Your task to perform on an android device: turn notification dots on Image 0: 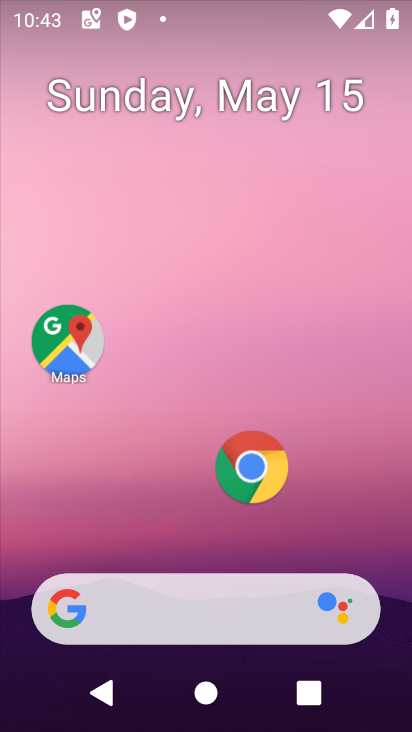
Step 0: drag from (231, 470) to (261, 19)
Your task to perform on an android device: turn notification dots on Image 1: 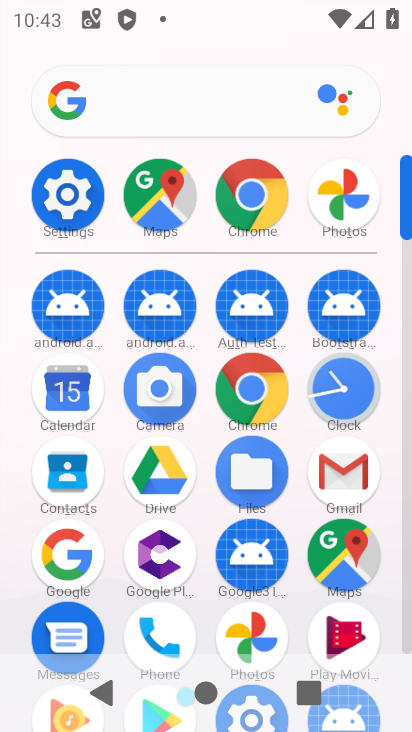
Step 1: click (53, 196)
Your task to perform on an android device: turn notification dots on Image 2: 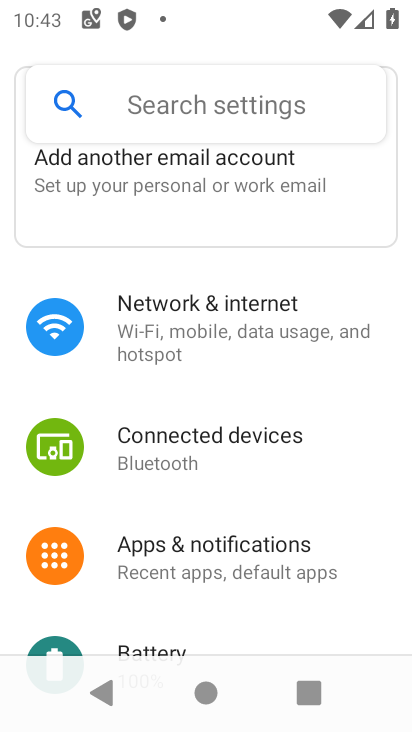
Step 2: drag from (228, 587) to (276, 77)
Your task to perform on an android device: turn notification dots on Image 3: 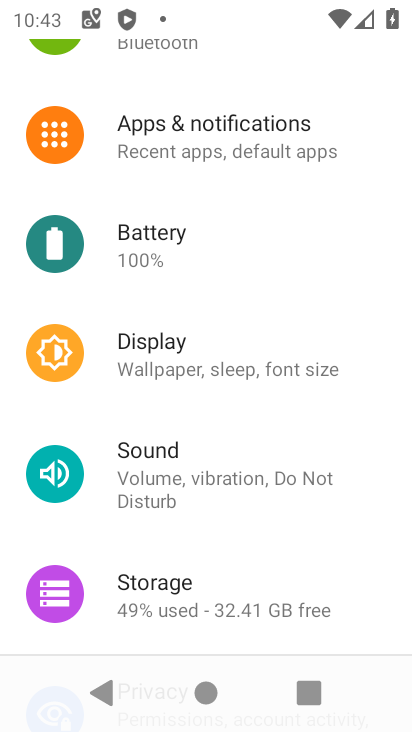
Step 3: click (207, 136)
Your task to perform on an android device: turn notification dots on Image 4: 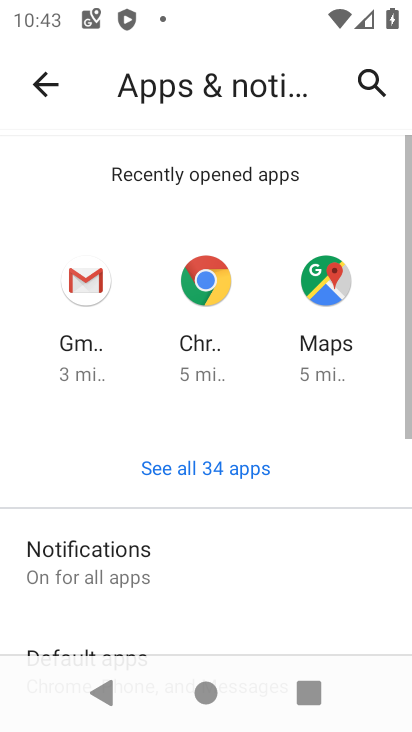
Step 4: drag from (301, 571) to (274, 81)
Your task to perform on an android device: turn notification dots on Image 5: 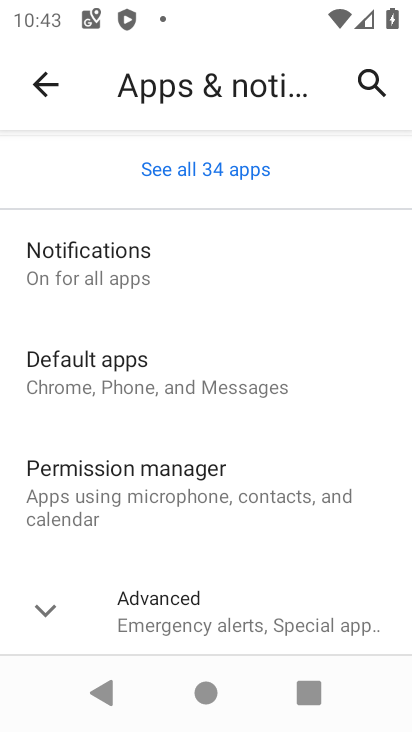
Step 5: click (222, 599)
Your task to perform on an android device: turn notification dots on Image 6: 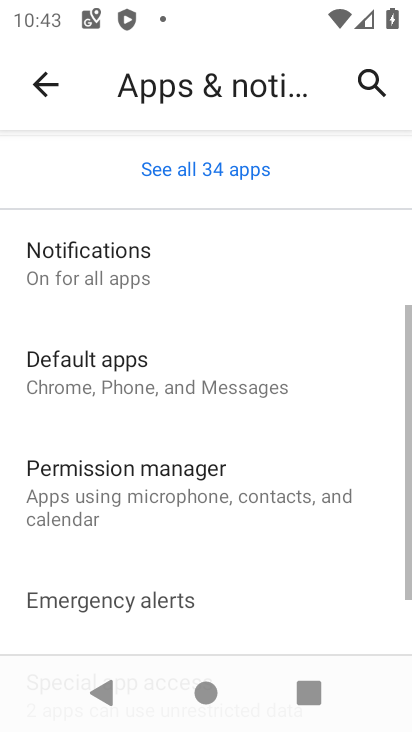
Step 6: drag from (222, 599) to (240, 193)
Your task to perform on an android device: turn notification dots on Image 7: 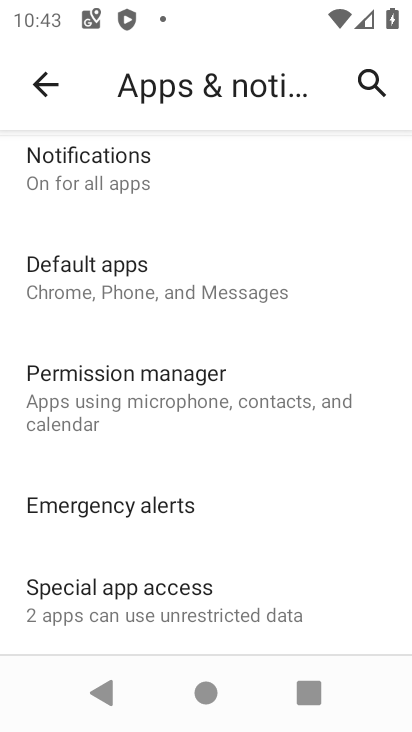
Step 7: click (212, 612)
Your task to perform on an android device: turn notification dots on Image 8: 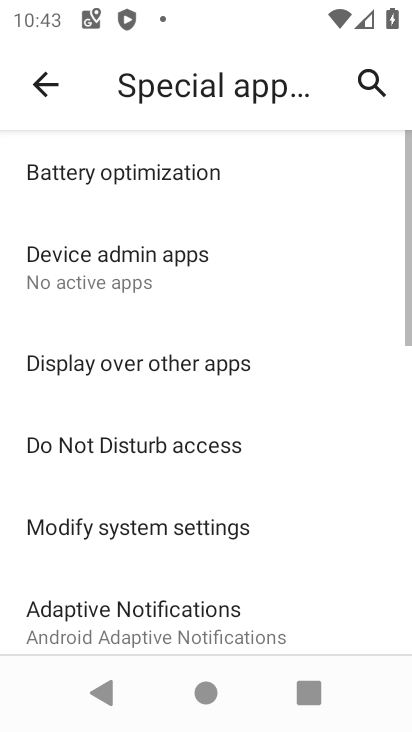
Step 8: drag from (212, 612) to (214, 194)
Your task to perform on an android device: turn notification dots on Image 9: 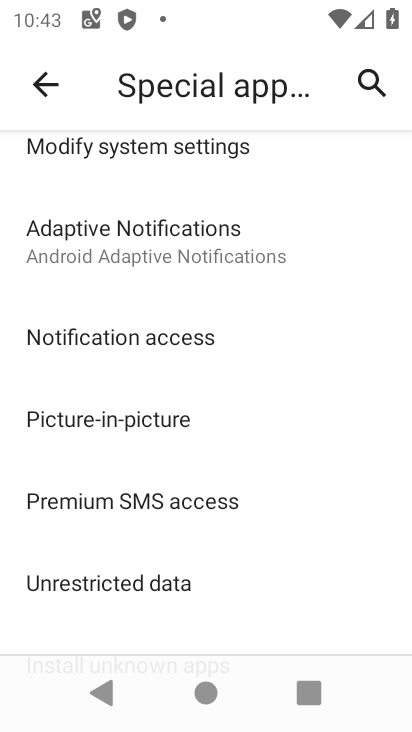
Step 9: click (74, 100)
Your task to perform on an android device: turn notification dots on Image 10: 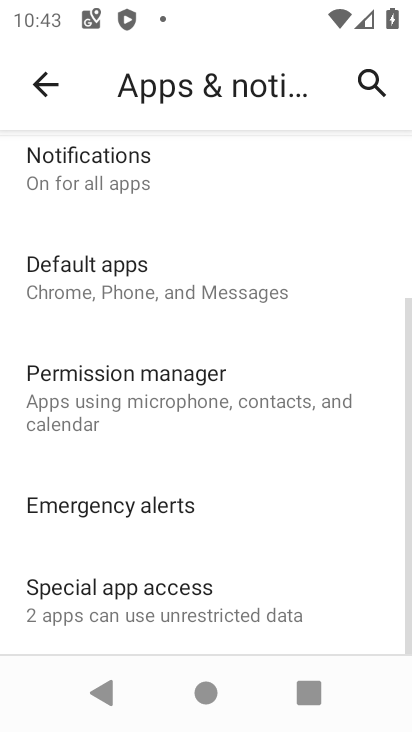
Step 10: click (136, 159)
Your task to perform on an android device: turn notification dots on Image 11: 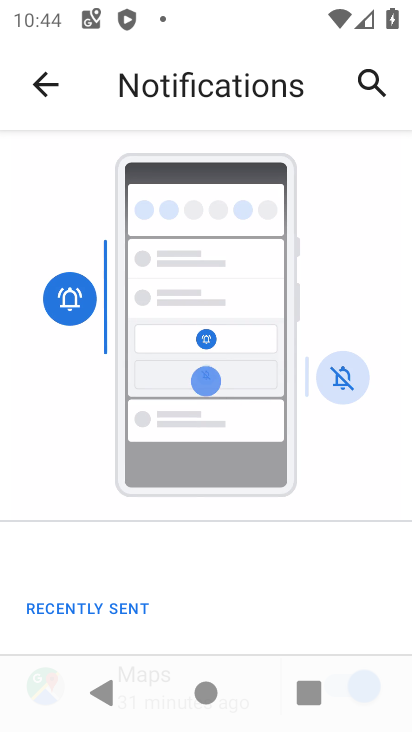
Step 11: drag from (288, 621) to (263, 134)
Your task to perform on an android device: turn notification dots on Image 12: 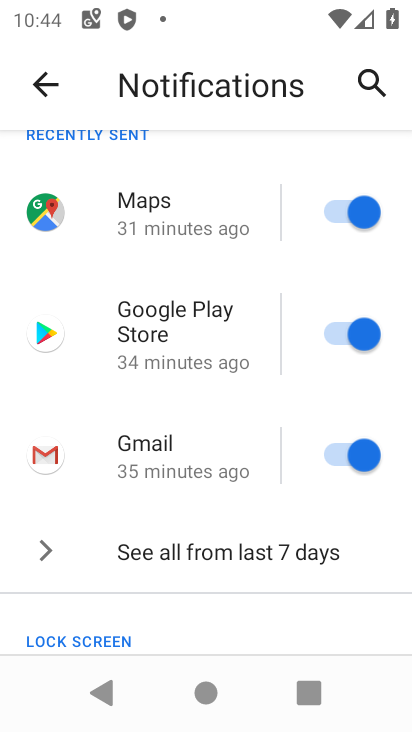
Step 12: drag from (234, 618) to (282, 93)
Your task to perform on an android device: turn notification dots on Image 13: 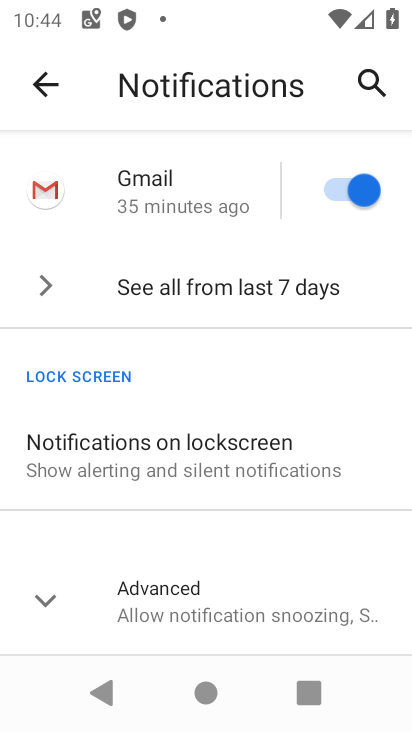
Step 13: click (202, 560)
Your task to perform on an android device: turn notification dots on Image 14: 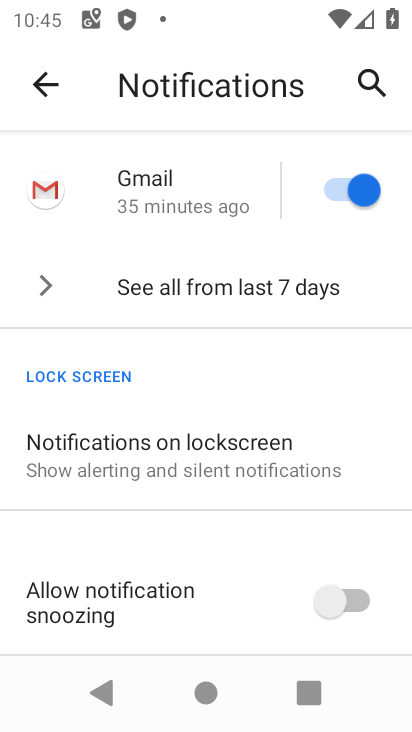
Step 14: click (205, 468)
Your task to perform on an android device: turn notification dots on Image 15: 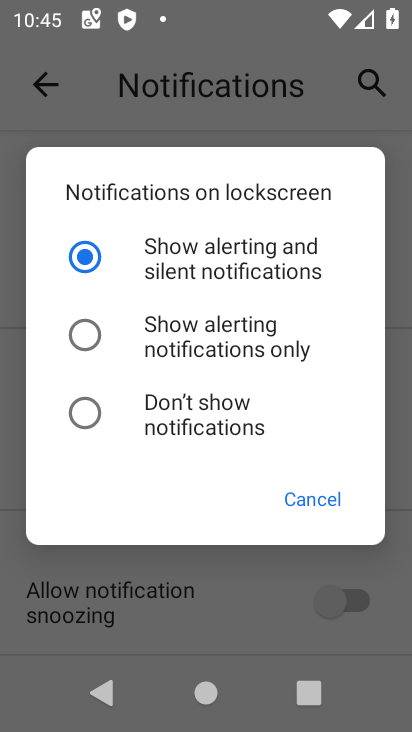
Step 15: click (313, 503)
Your task to perform on an android device: turn notification dots on Image 16: 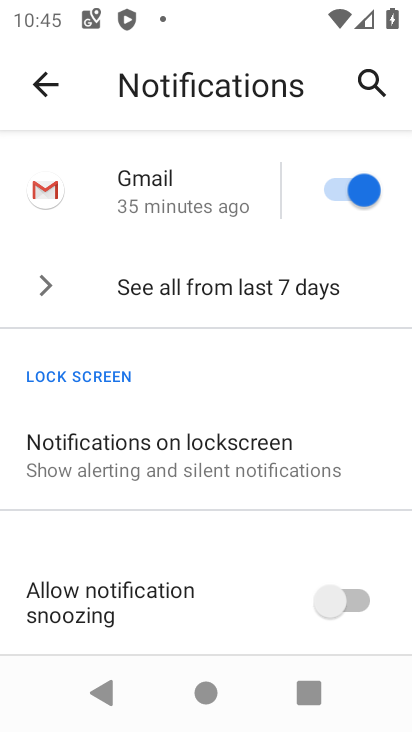
Step 16: task complete